Your task to perform on an android device: Check the weather Image 0: 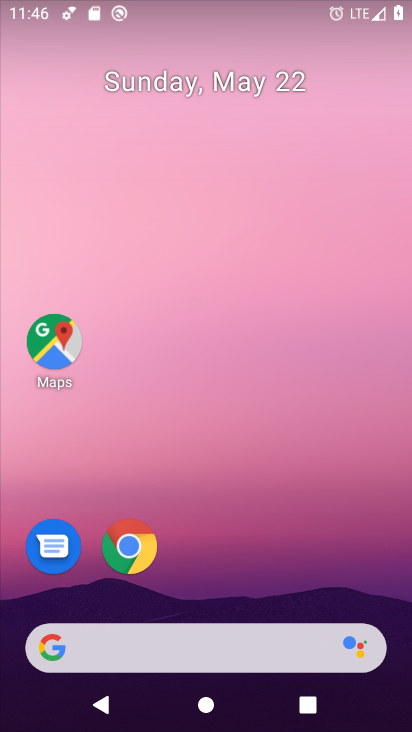
Step 0: drag from (265, 561) to (375, 10)
Your task to perform on an android device: Check the weather Image 1: 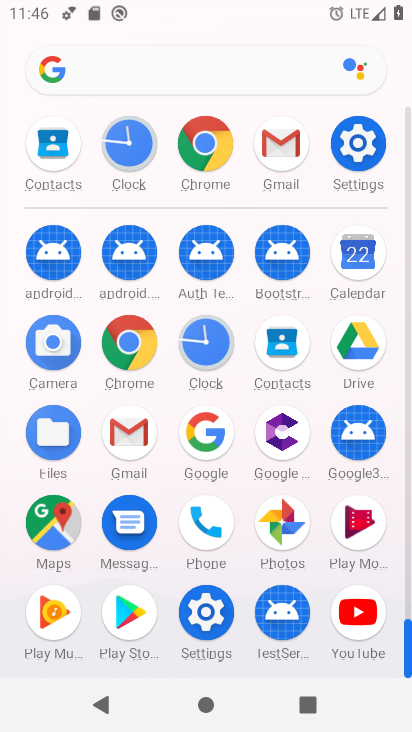
Step 1: click (206, 432)
Your task to perform on an android device: Check the weather Image 2: 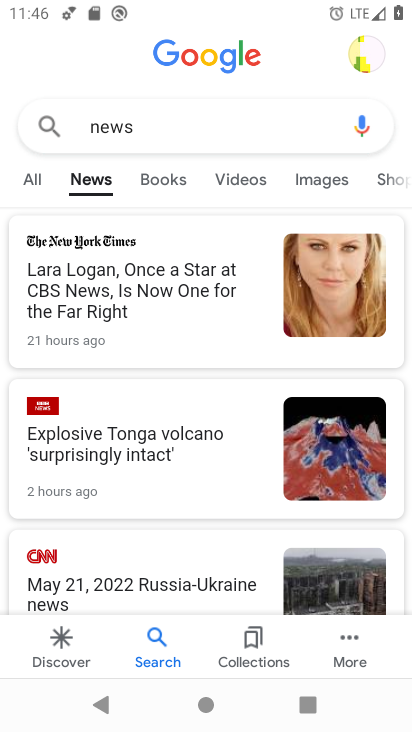
Step 2: click (248, 144)
Your task to perform on an android device: Check the weather Image 3: 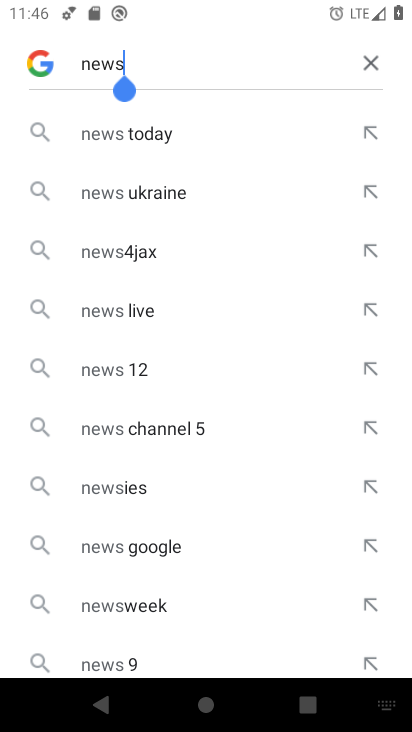
Step 3: click (377, 58)
Your task to perform on an android device: Check the weather Image 4: 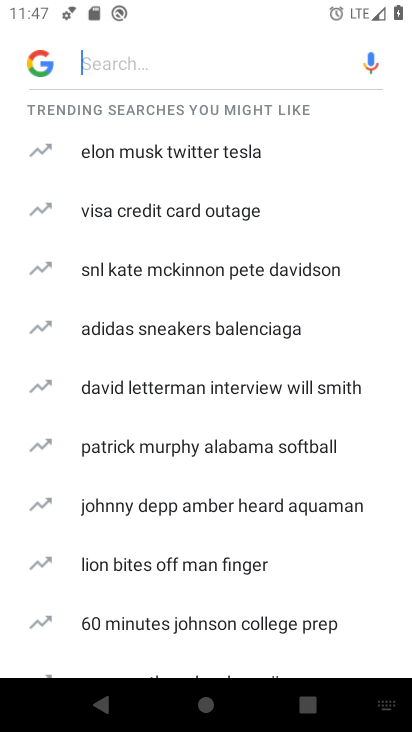
Step 4: type "weather"
Your task to perform on an android device: Check the weather Image 5: 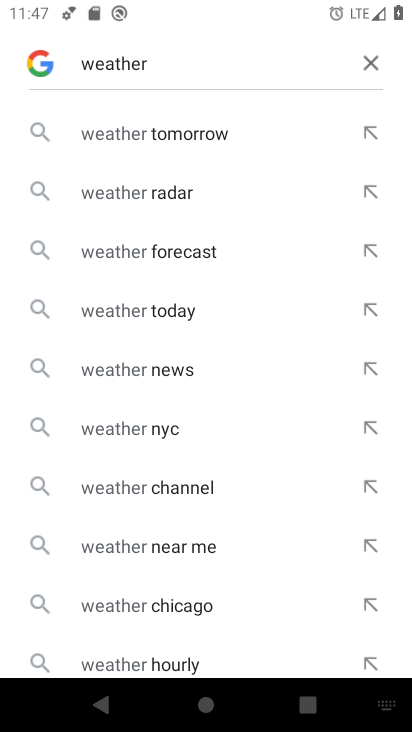
Step 5: click (199, 319)
Your task to perform on an android device: Check the weather Image 6: 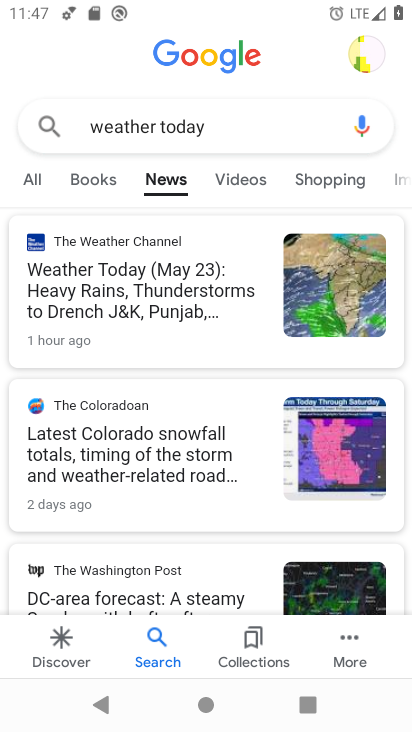
Step 6: task complete